Your task to perform on an android device: turn vacation reply on in the gmail app Image 0: 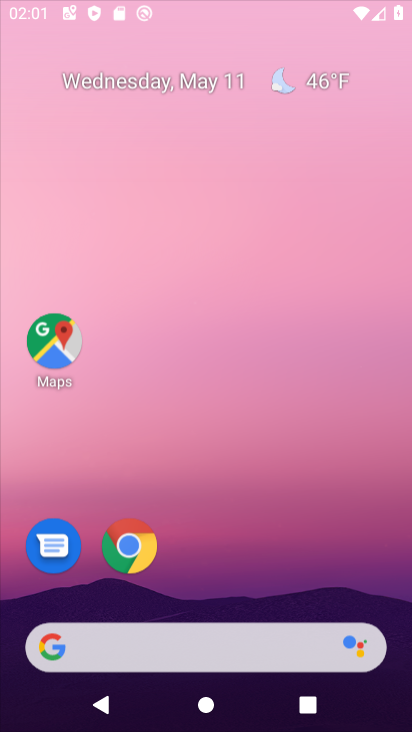
Step 0: click (255, 246)
Your task to perform on an android device: turn vacation reply on in the gmail app Image 1: 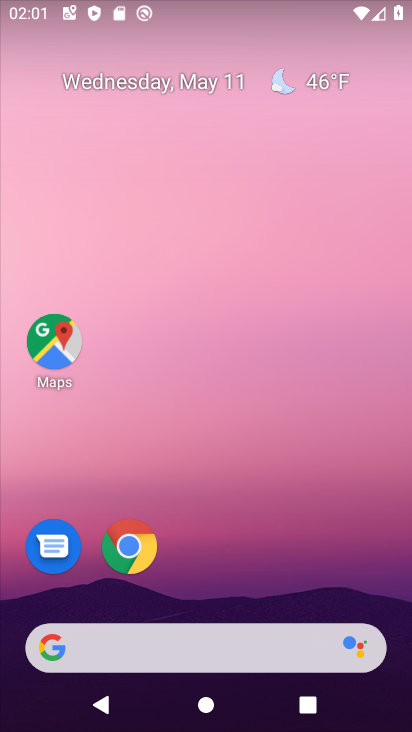
Step 1: drag from (181, 585) to (271, 150)
Your task to perform on an android device: turn vacation reply on in the gmail app Image 2: 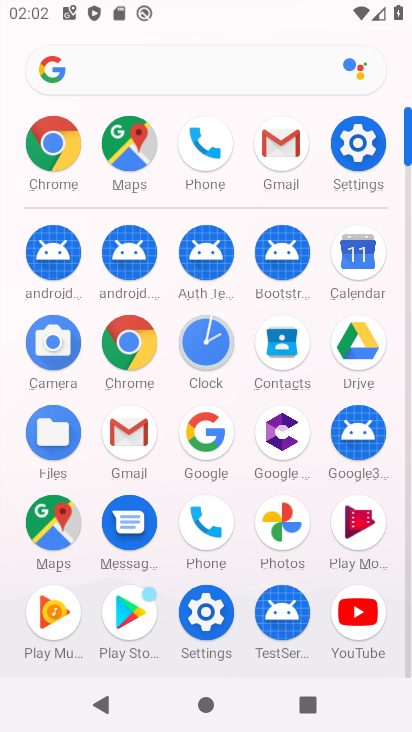
Step 2: click (142, 429)
Your task to perform on an android device: turn vacation reply on in the gmail app Image 3: 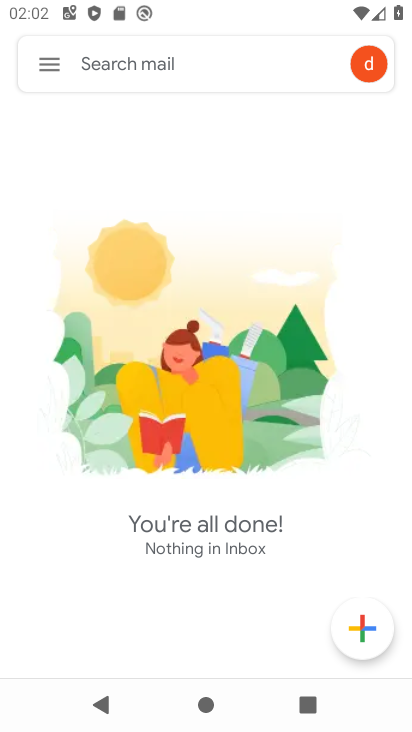
Step 3: drag from (247, 533) to (275, 347)
Your task to perform on an android device: turn vacation reply on in the gmail app Image 4: 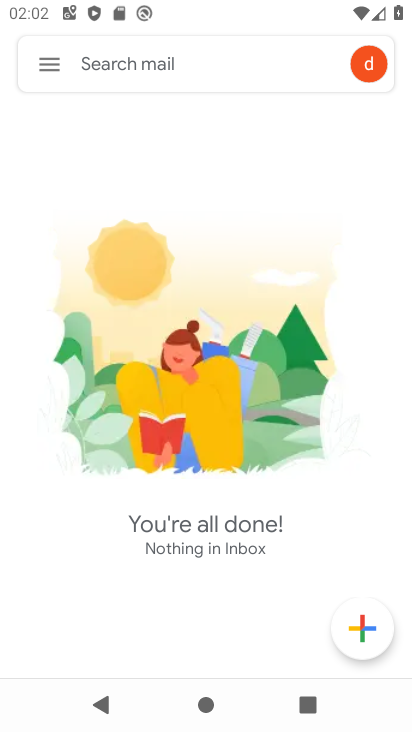
Step 4: drag from (210, 625) to (237, 358)
Your task to perform on an android device: turn vacation reply on in the gmail app Image 5: 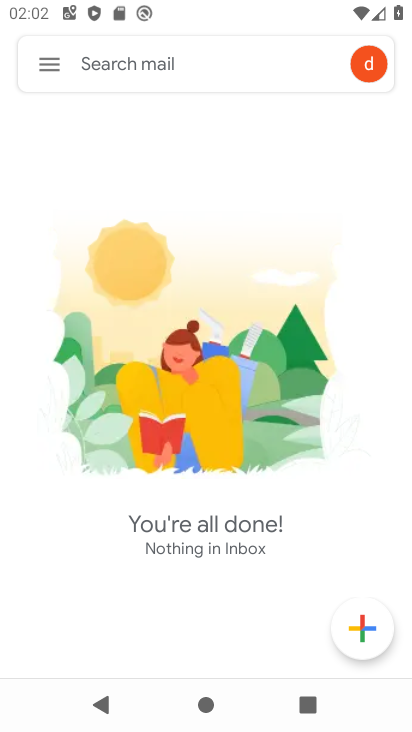
Step 5: click (35, 59)
Your task to perform on an android device: turn vacation reply on in the gmail app Image 6: 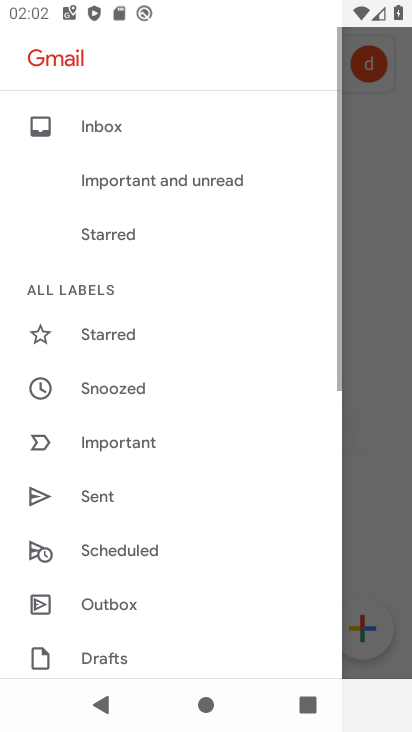
Step 6: drag from (165, 568) to (310, 25)
Your task to perform on an android device: turn vacation reply on in the gmail app Image 7: 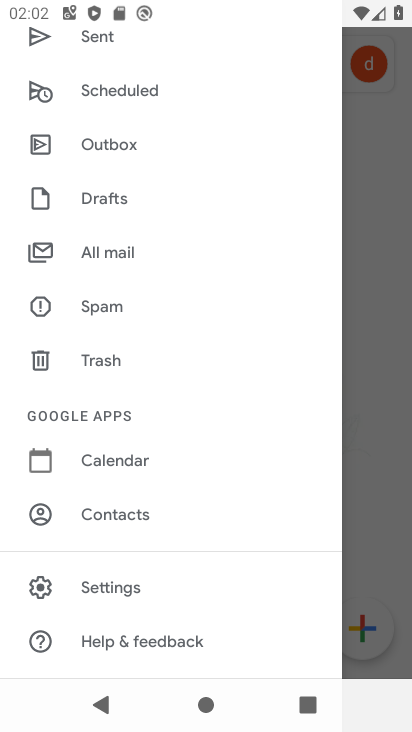
Step 7: click (145, 582)
Your task to perform on an android device: turn vacation reply on in the gmail app Image 8: 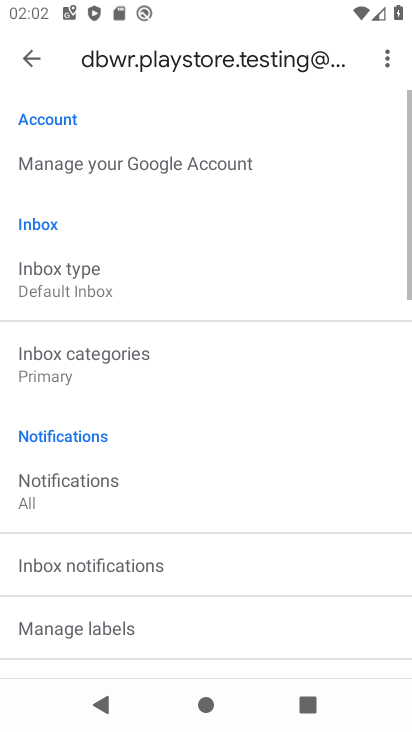
Step 8: drag from (145, 582) to (280, 57)
Your task to perform on an android device: turn vacation reply on in the gmail app Image 9: 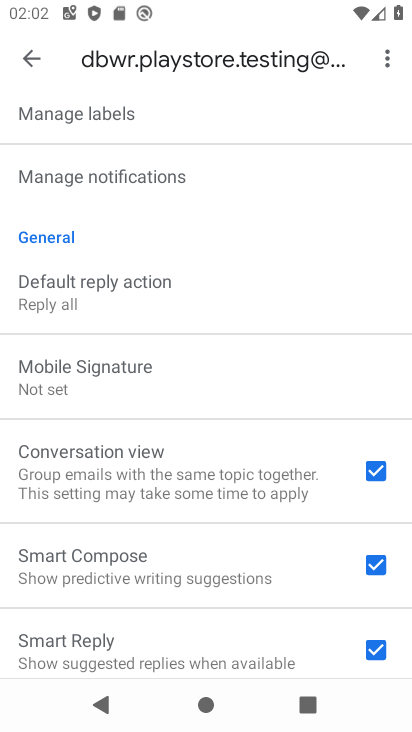
Step 9: drag from (165, 172) to (199, 721)
Your task to perform on an android device: turn vacation reply on in the gmail app Image 10: 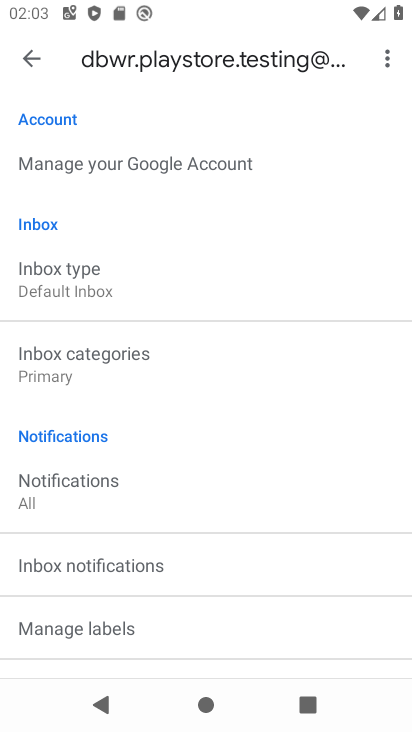
Step 10: drag from (162, 573) to (333, 7)
Your task to perform on an android device: turn vacation reply on in the gmail app Image 11: 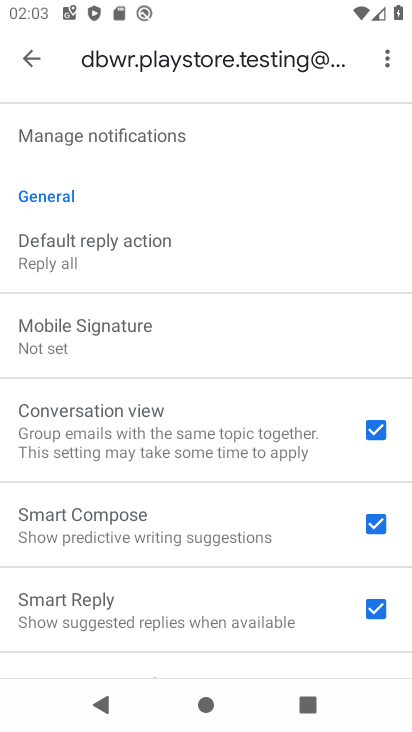
Step 11: drag from (192, 553) to (323, 151)
Your task to perform on an android device: turn vacation reply on in the gmail app Image 12: 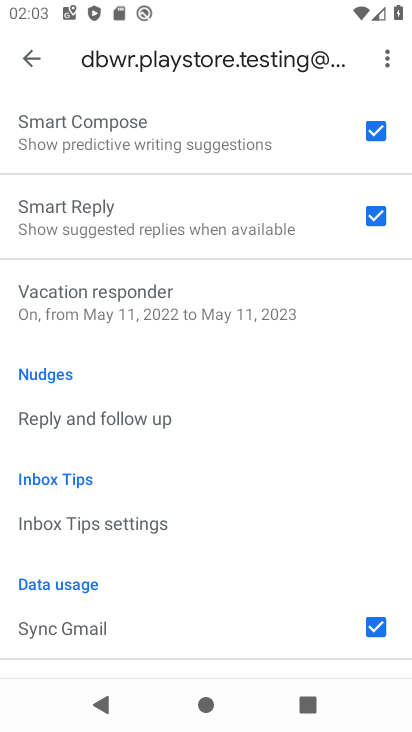
Step 12: click (153, 298)
Your task to perform on an android device: turn vacation reply on in the gmail app Image 13: 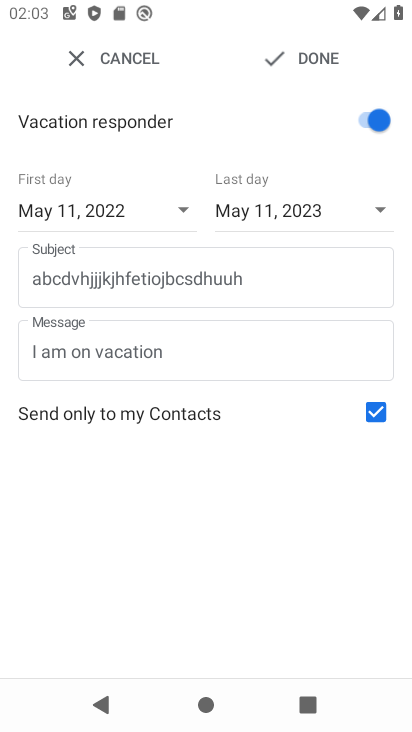
Step 13: click (291, 62)
Your task to perform on an android device: turn vacation reply on in the gmail app Image 14: 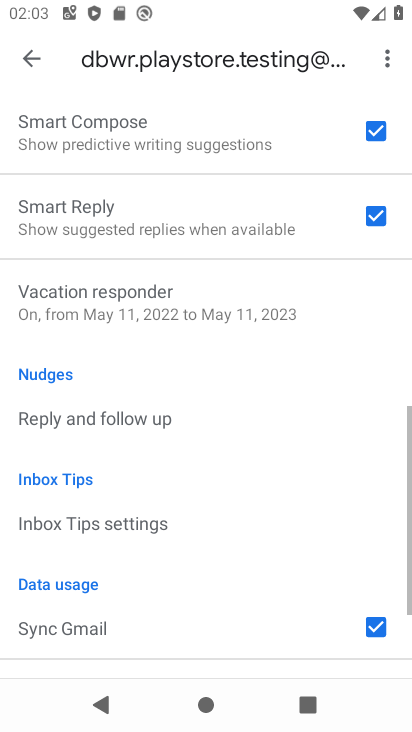
Step 14: task complete